Your task to perform on an android device: turn pop-ups off in chrome Image 0: 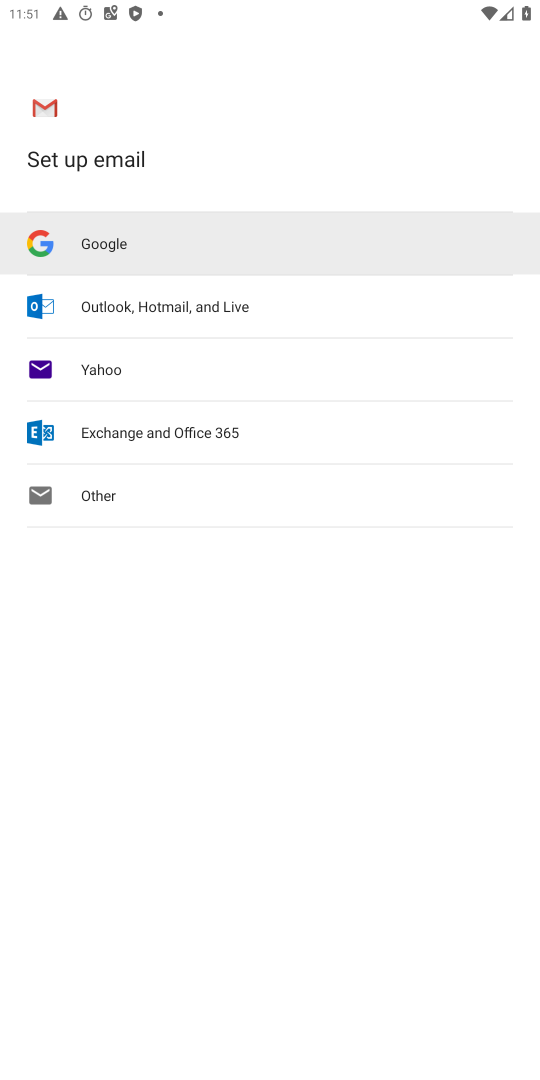
Step 0: press home button
Your task to perform on an android device: turn pop-ups off in chrome Image 1: 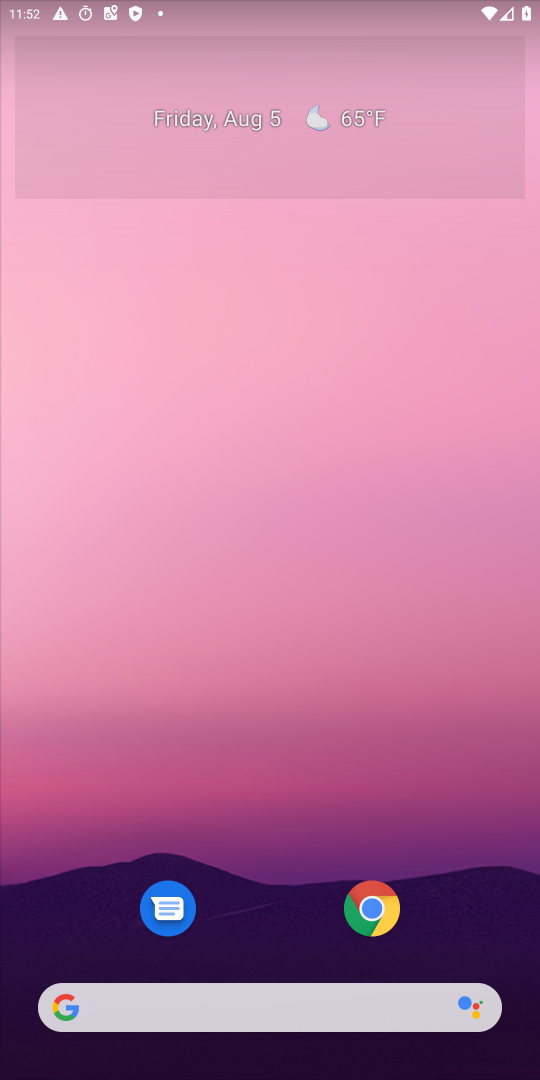
Step 1: click (371, 911)
Your task to perform on an android device: turn pop-ups off in chrome Image 2: 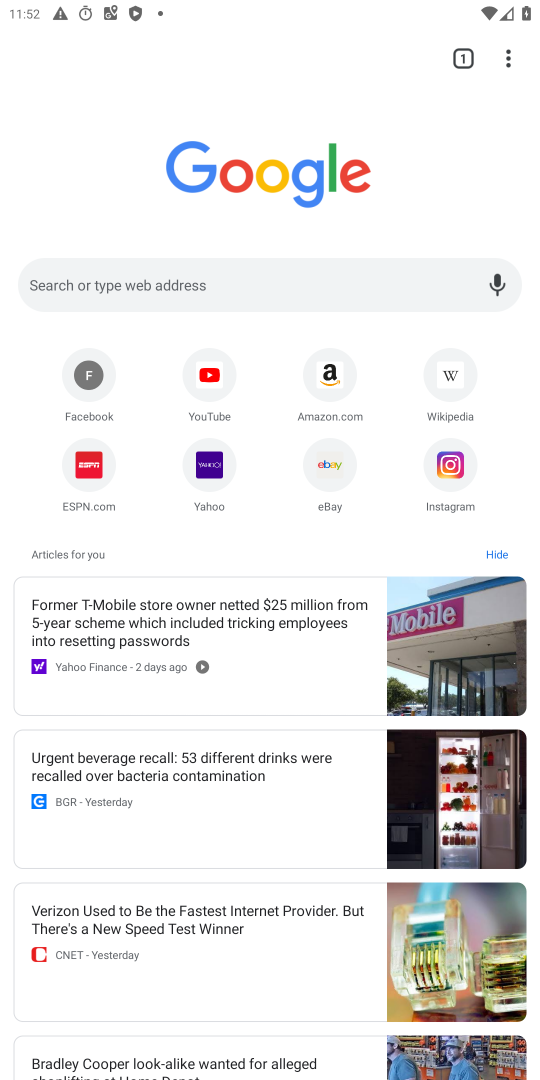
Step 2: click (508, 47)
Your task to perform on an android device: turn pop-ups off in chrome Image 3: 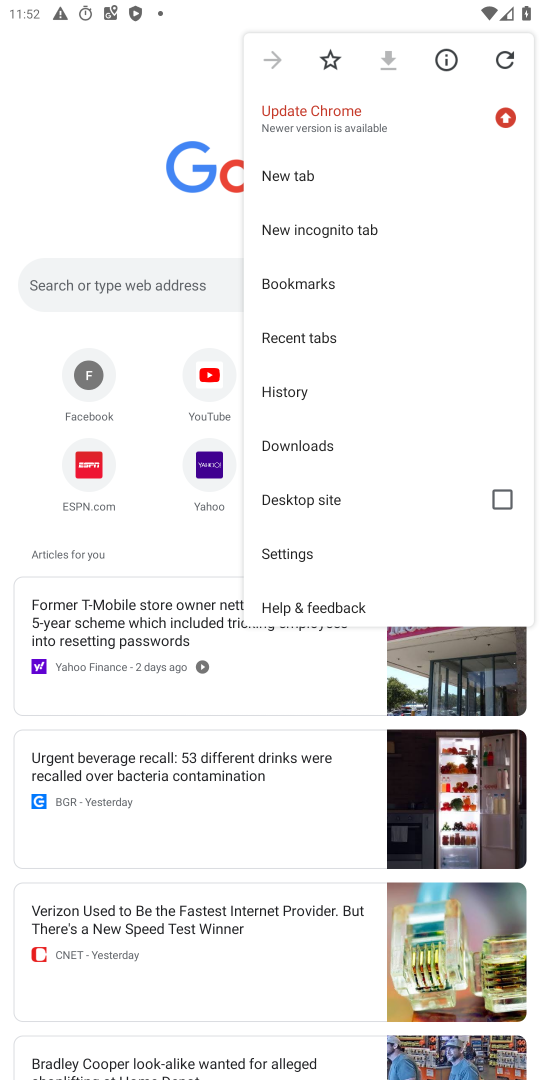
Step 3: click (282, 546)
Your task to perform on an android device: turn pop-ups off in chrome Image 4: 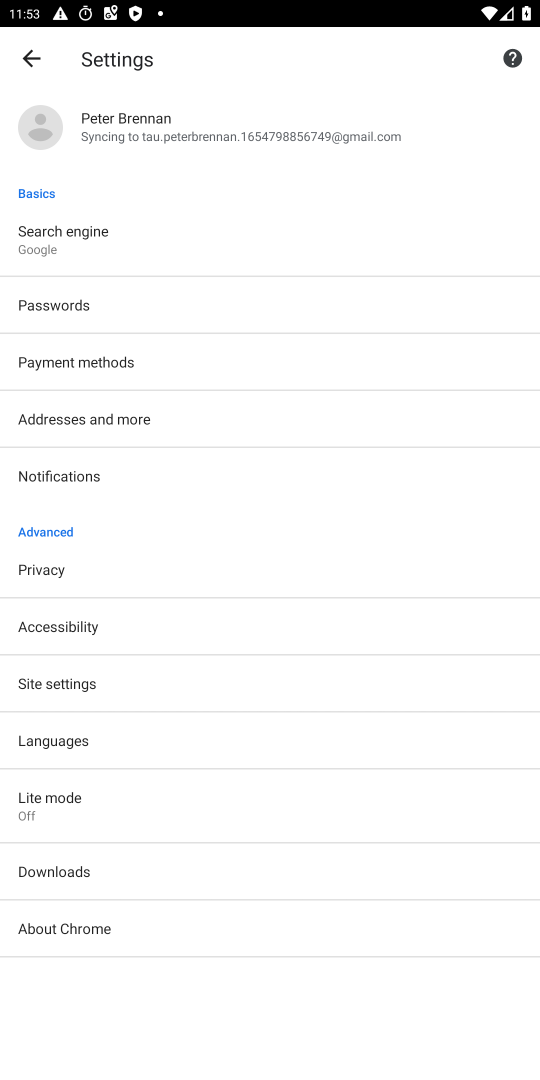
Step 4: click (47, 684)
Your task to perform on an android device: turn pop-ups off in chrome Image 5: 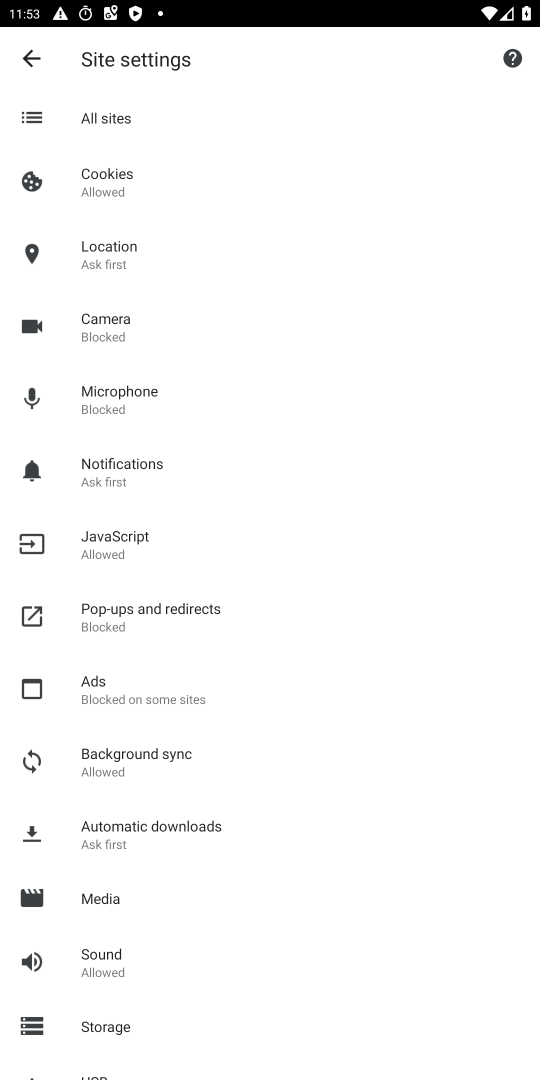
Step 5: click (143, 615)
Your task to perform on an android device: turn pop-ups off in chrome Image 6: 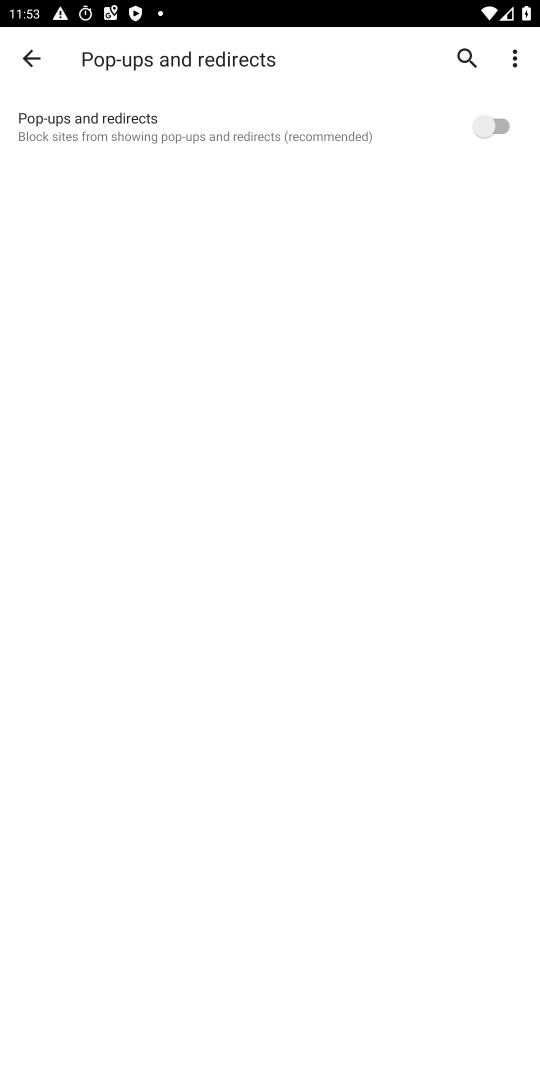
Step 6: task complete